Your task to perform on an android device: check google app version Image 0: 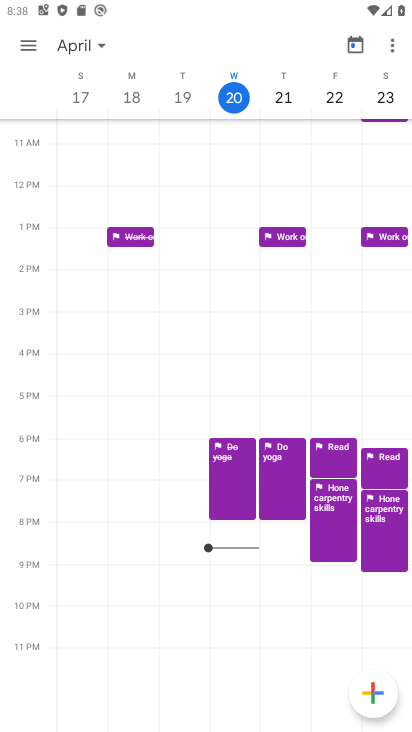
Step 0: press home button
Your task to perform on an android device: check google app version Image 1: 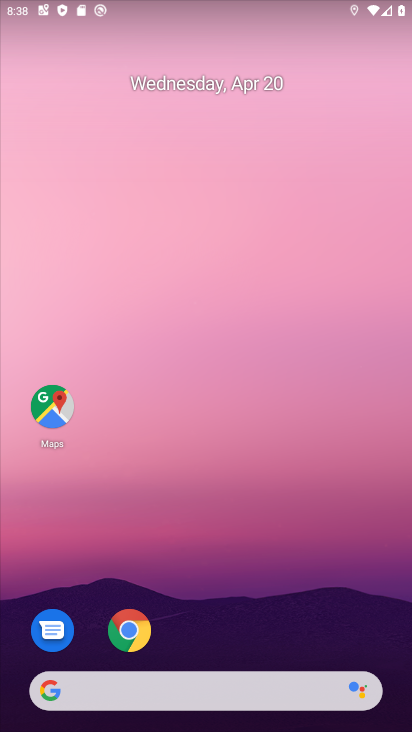
Step 1: click (113, 690)
Your task to perform on an android device: check google app version Image 2: 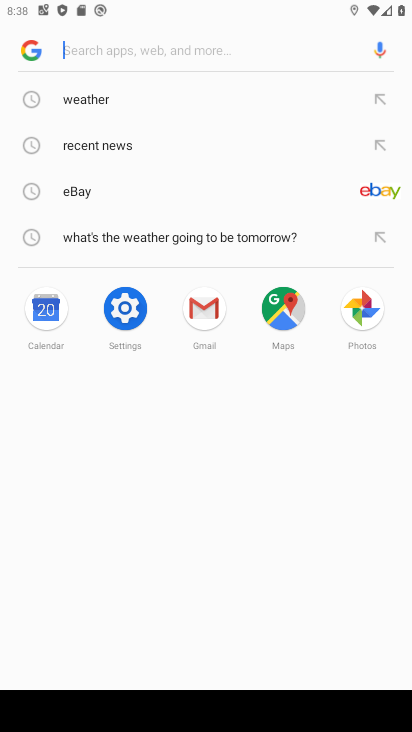
Step 2: click (35, 39)
Your task to perform on an android device: check google app version Image 3: 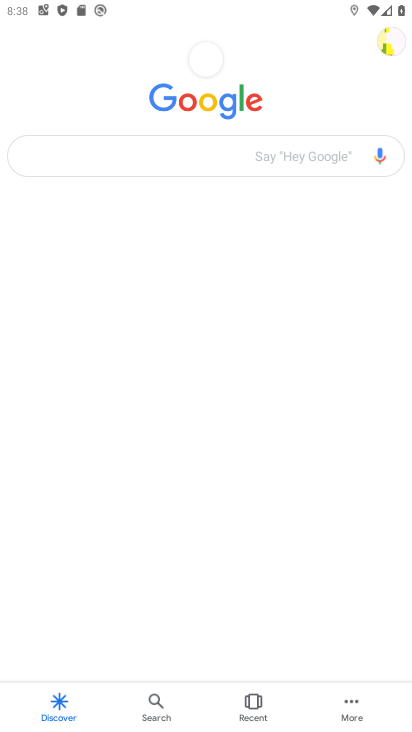
Step 3: click (347, 697)
Your task to perform on an android device: check google app version Image 4: 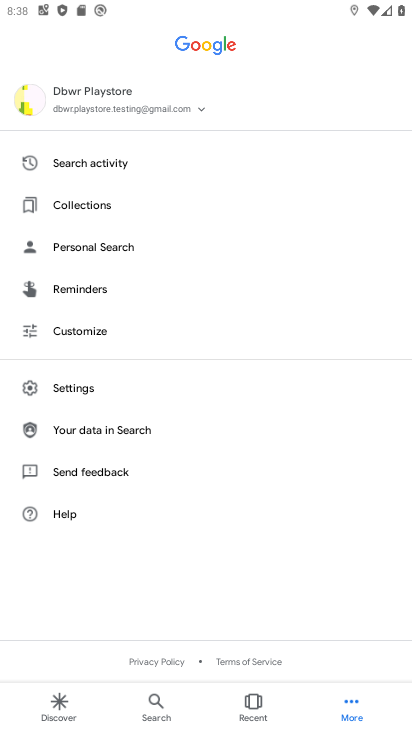
Step 4: click (81, 389)
Your task to perform on an android device: check google app version Image 5: 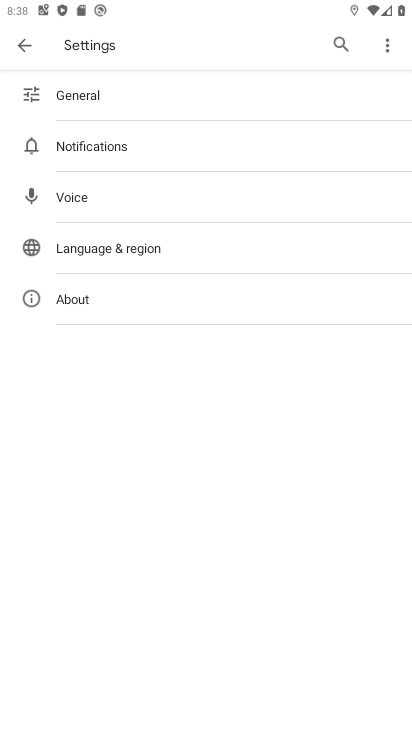
Step 5: click (110, 303)
Your task to perform on an android device: check google app version Image 6: 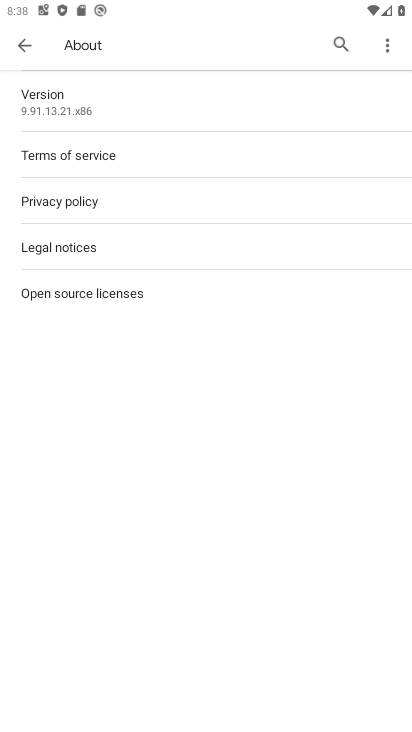
Step 6: task complete